Your task to perform on an android device: open a bookmark in the chrome app Image 0: 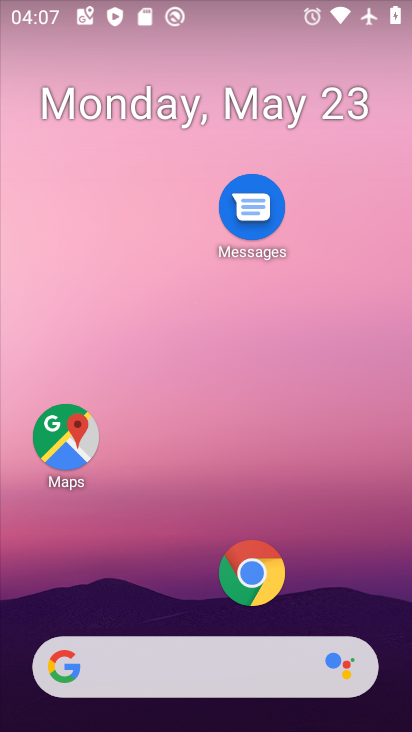
Step 0: drag from (312, 709) to (322, 1)
Your task to perform on an android device: open a bookmark in the chrome app Image 1: 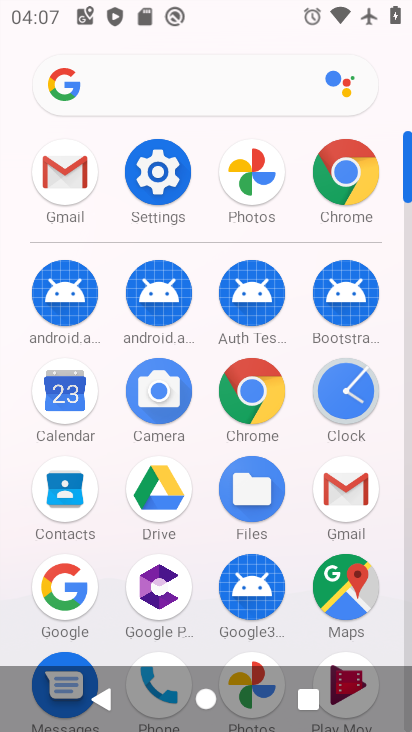
Step 1: click (260, 396)
Your task to perform on an android device: open a bookmark in the chrome app Image 2: 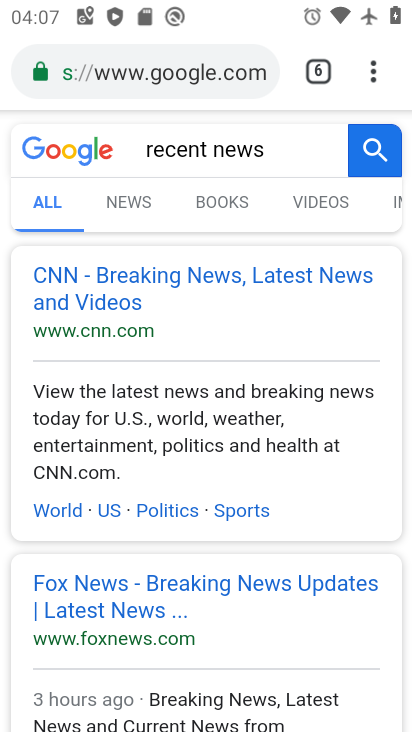
Step 2: click (378, 74)
Your task to perform on an android device: open a bookmark in the chrome app Image 3: 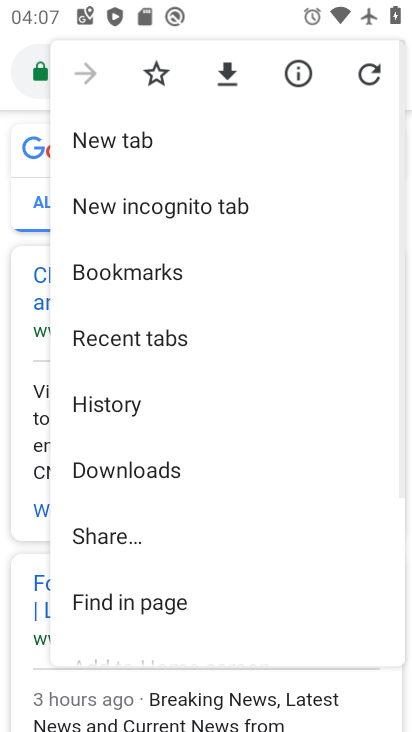
Step 3: click (189, 286)
Your task to perform on an android device: open a bookmark in the chrome app Image 4: 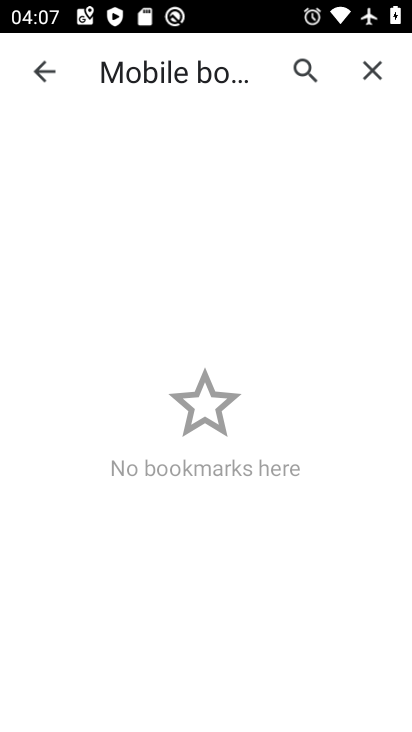
Step 4: task complete